Your task to perform on an android device: toggle data saver in the chrome app Image 0: 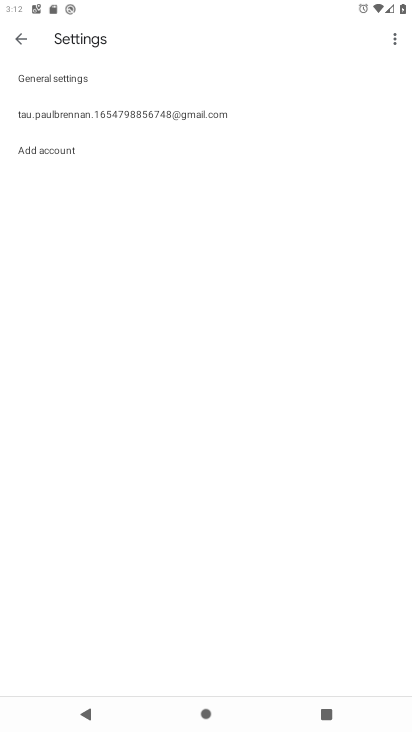
Step 0: press home button
Your task to perform on an android device: toggle data saver in the chrome app Image 1: 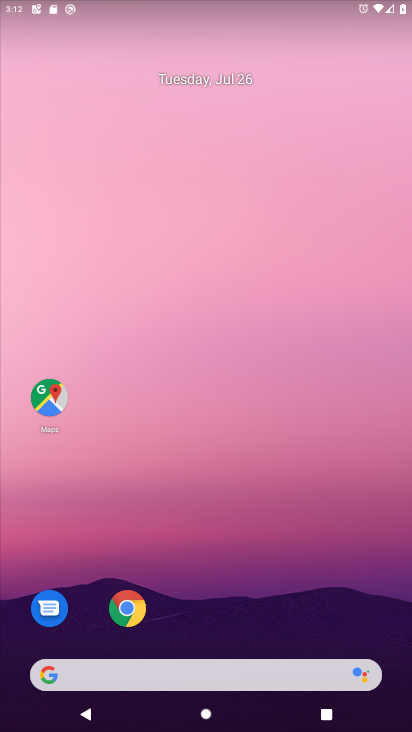
Step 1: click (128, 612)
Your task to perform on an android device: toggle data saver in the chrome app Image 2: 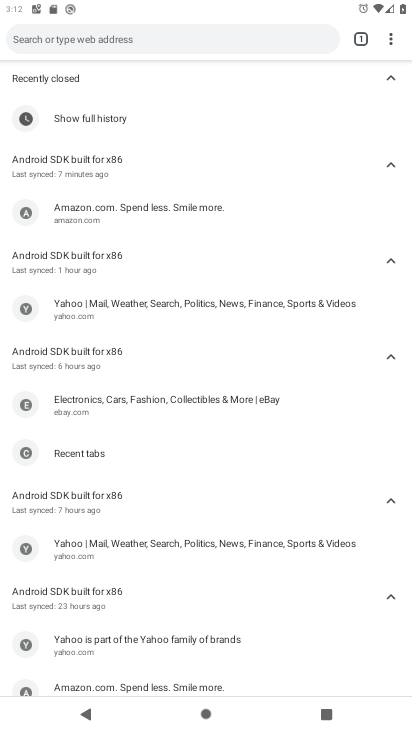
Step 2: click (394, 33)
Your task to perform on an android device: toggle data saver in the chrome app Image 3: 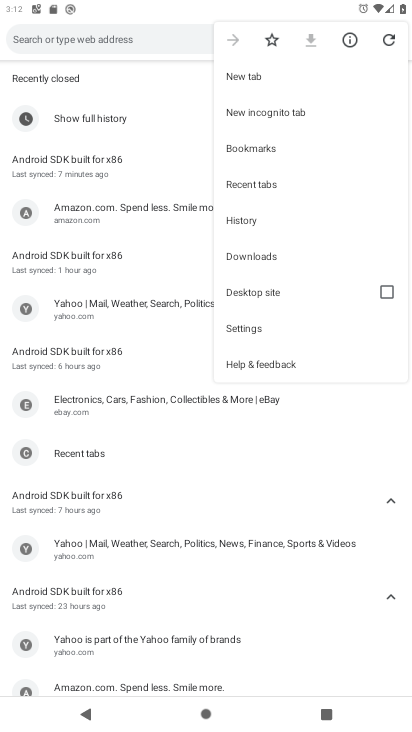
Step 3: click (270, 325)
Your task to perform on an android device: toggle data saver in the chrome app Image 4: 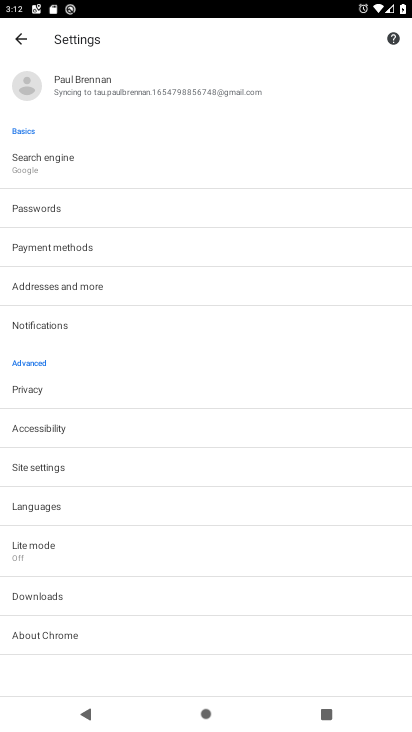
Step 4: click (73, 547)
Your task to perform on an android device: toggle data saver in the chrome app Image 5: 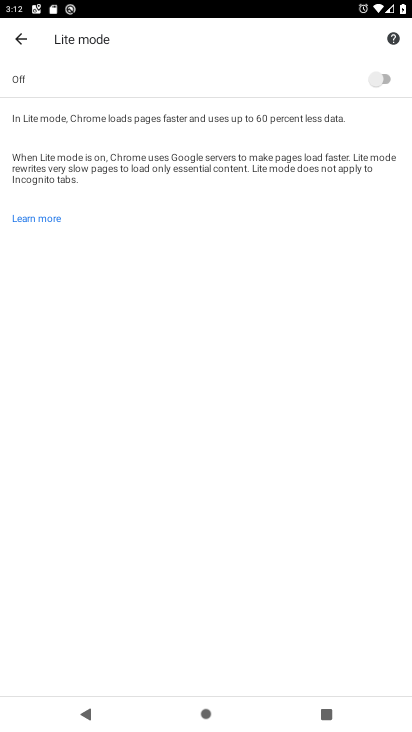
Step 5: click (381, 75)
Your task to perform on an android device: toggle data saver in the chrome app Image 6: 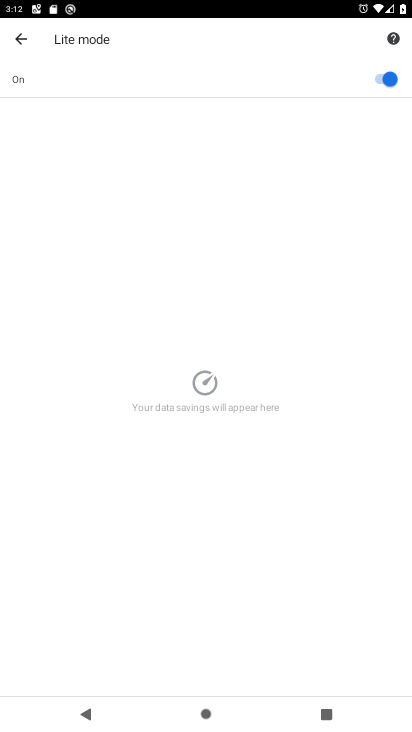
Step 6: task complete